Your task to perform on an android device: open app "LinkedIn" (install if not already installed) Image 0: 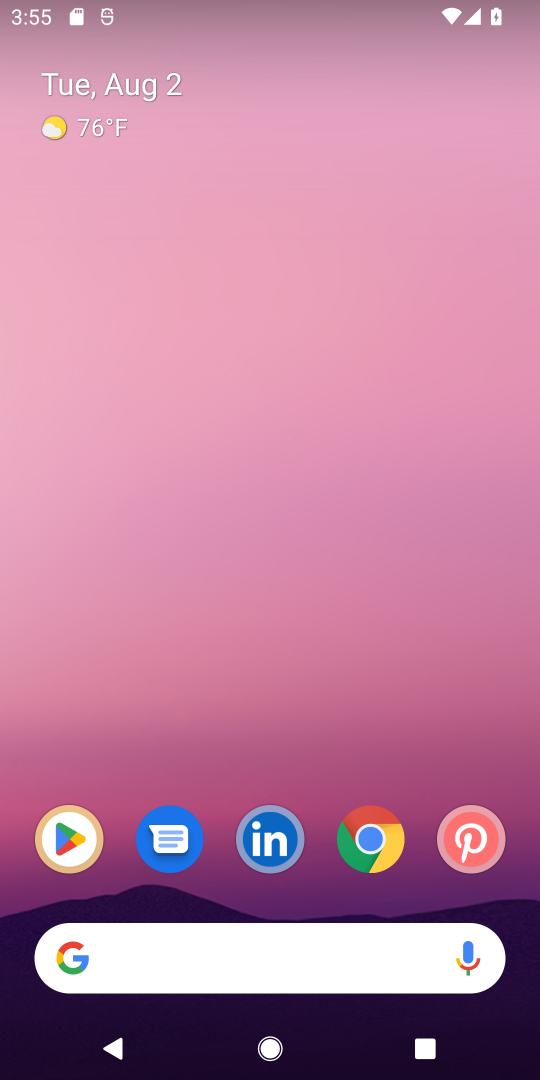
Step 0: click (269, 840)
Your task to perform on an android device: open app "LinkedIn" (install if not already installed) Image 1: 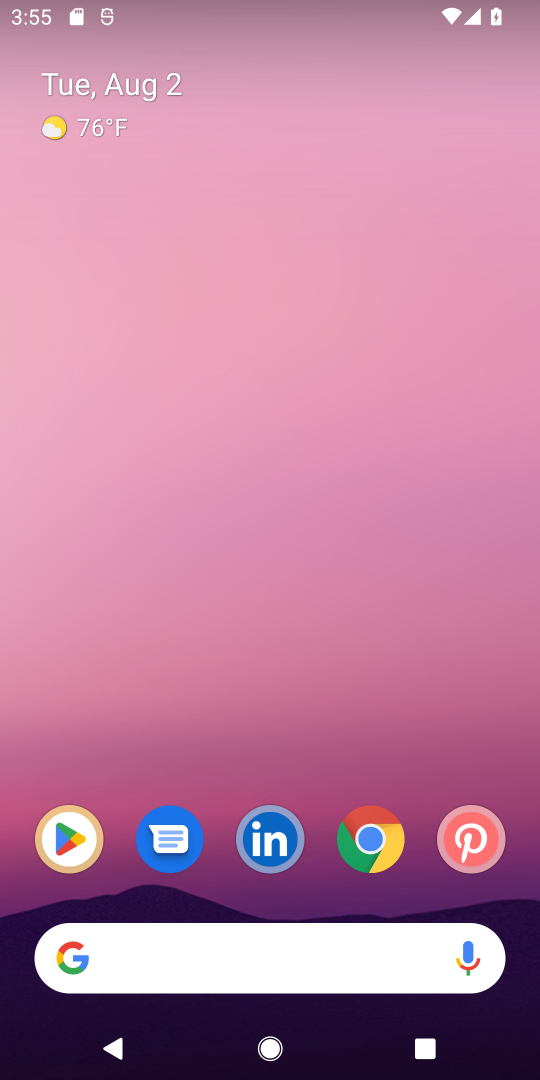
Step 1: task complete